Your task to perform on an android device: change the clock display to digital Image 0: 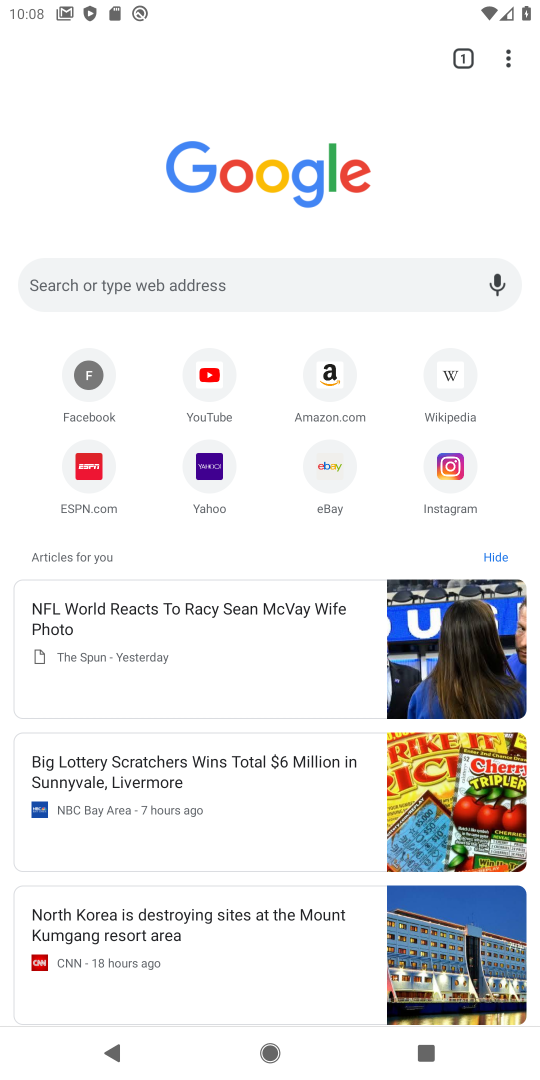
Step 0: press home button
Your task to perform on an android device: change the clock display to digital Image 1: 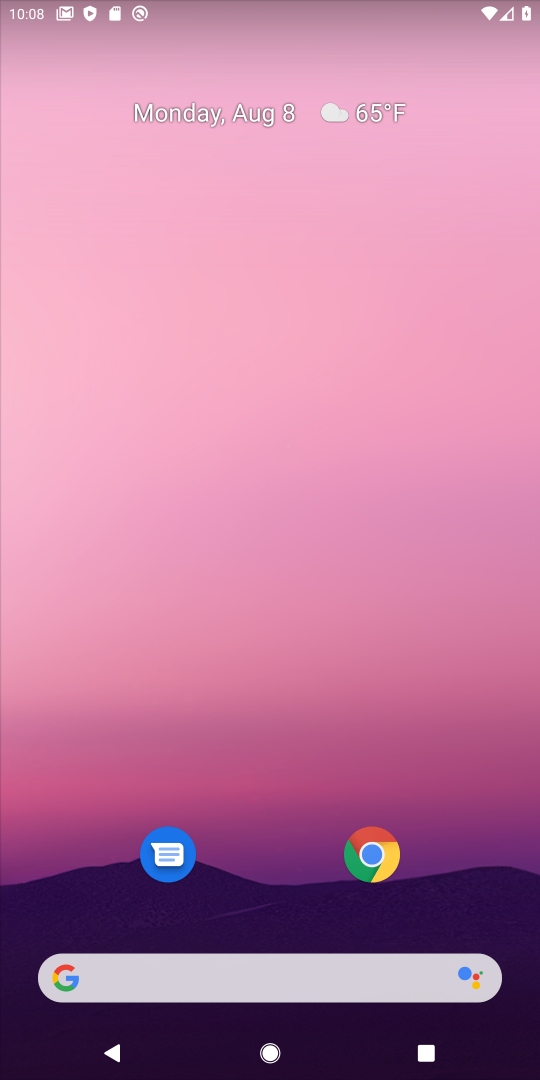
Step 1: drag from (284, 908) to (266, 147)
Your task to perform on an android device: change the clock display to digital Image 2: 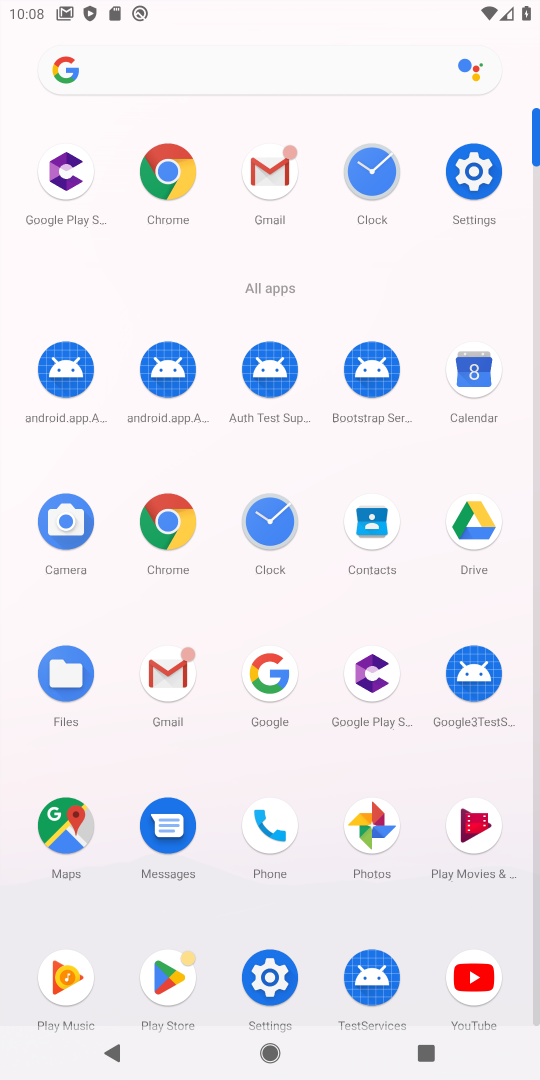
Step 2: click (376, 178)
Your task to perform on an android device: change the clock display to digital Image 3: 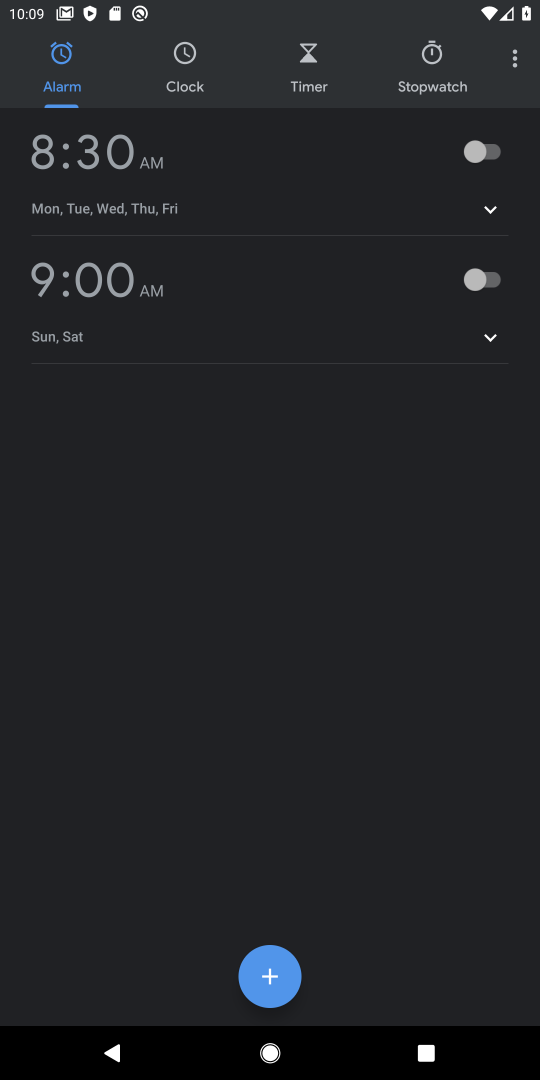
Step 3: click (532, 63)
Your task to perform on an android device: change the clock display to digital Image 4: 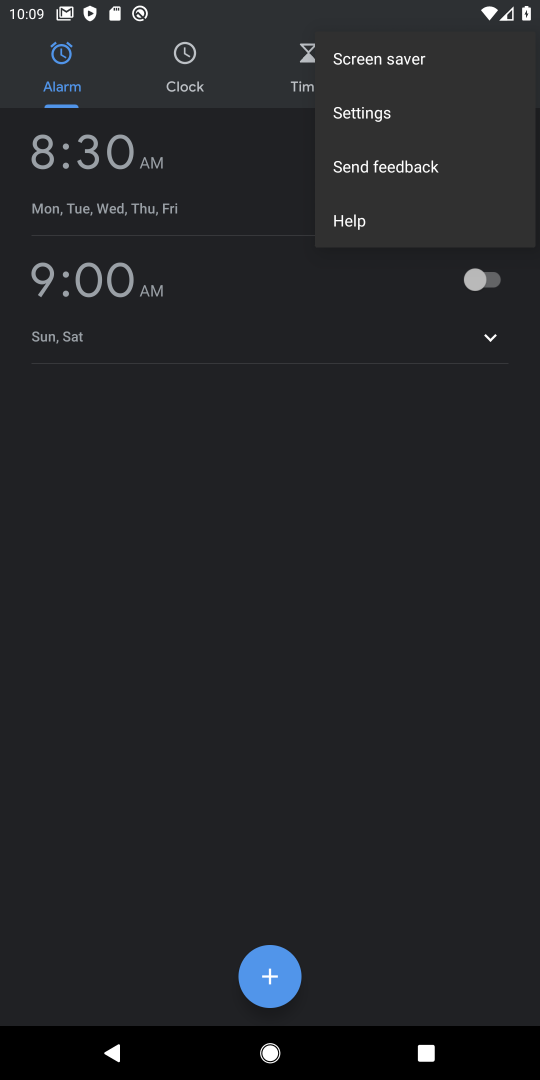
Step 4: click (430, 123)
Your task to perform on an android device: change the clock display to digital Image 5: 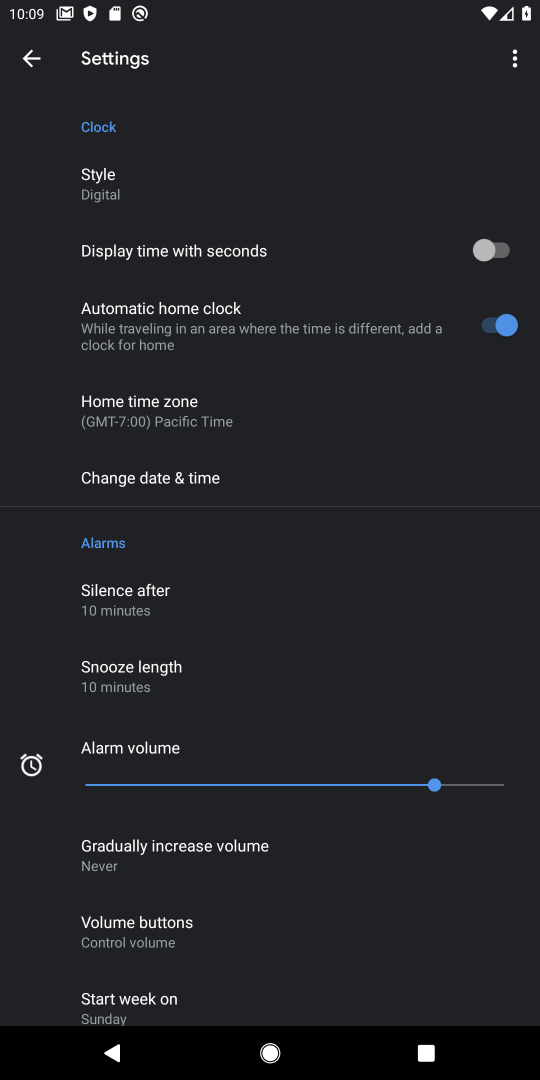
Step 5: task complete